Your task to perform on an android device: open app "ColorNote Notepad Notes" (install if not already installed), go to login, and select forgot password Image 0: 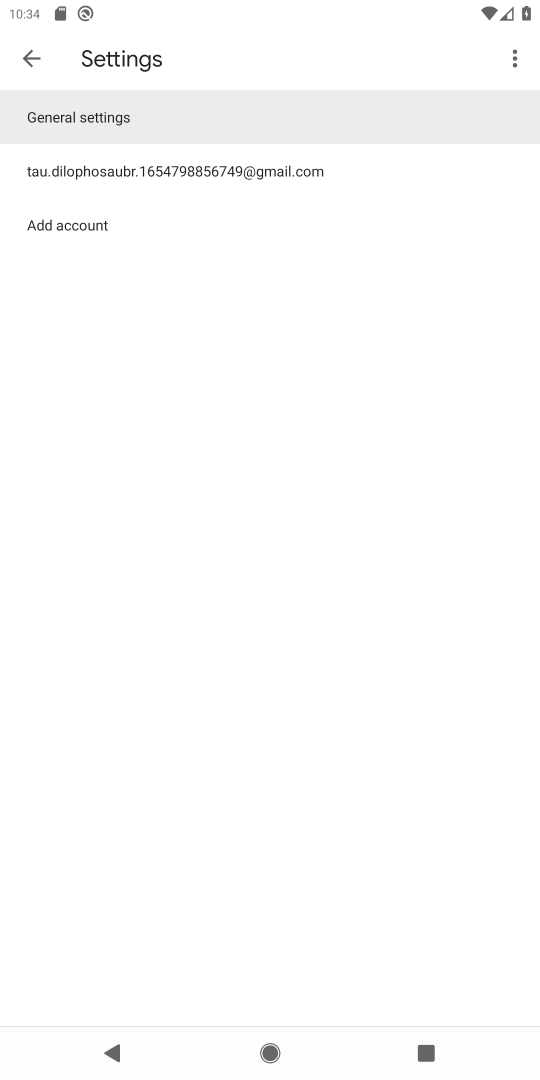
Step 0: press home button
Your task to perform on an android device: open app "ColorNote Notepad Notes" (install if not already installed), go to login, and select forgot password Image 1: 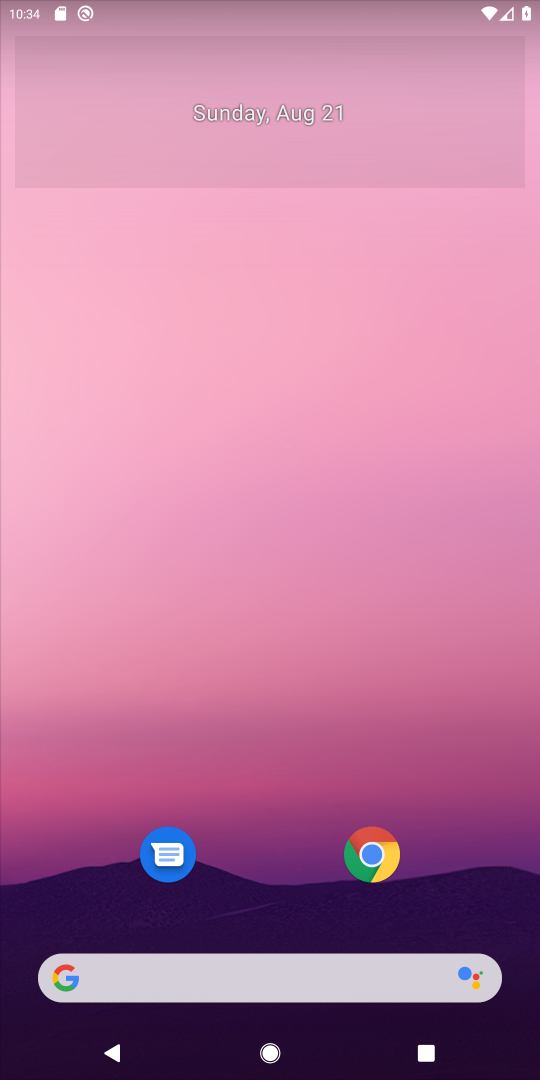
Step 1: drag from (290, 918) to (276, 65)
Your task to perform on an android device: open app "ColorNote Notepad Notes" (install if not already installed), go to login, and select forgot password Image 2: 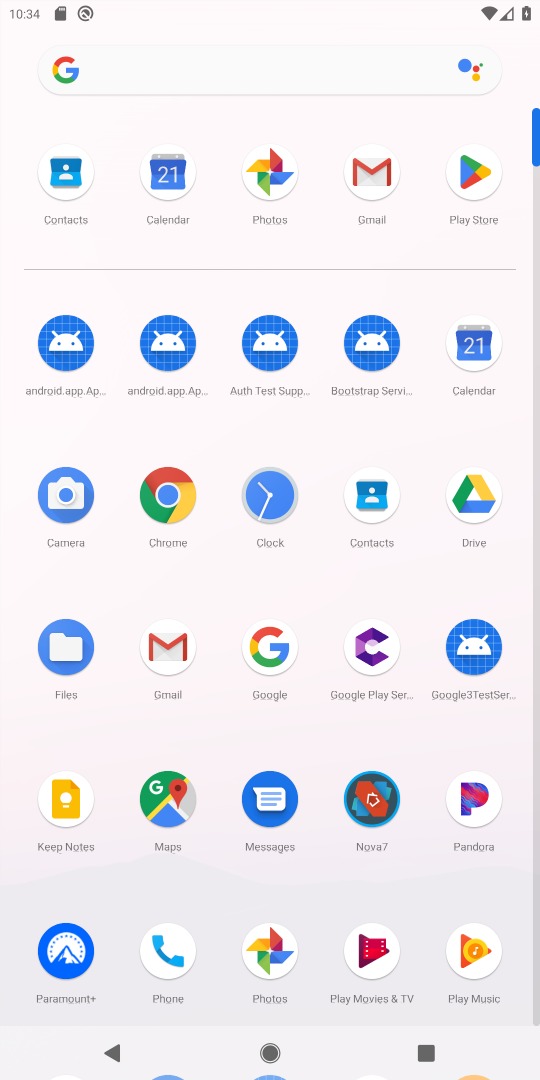
Step 2: click (473, 189)
Your task to perform on an android device: open app "ColorNote Notepad Notes" (install if not already installed), go to login, and select forgot password Image 3: 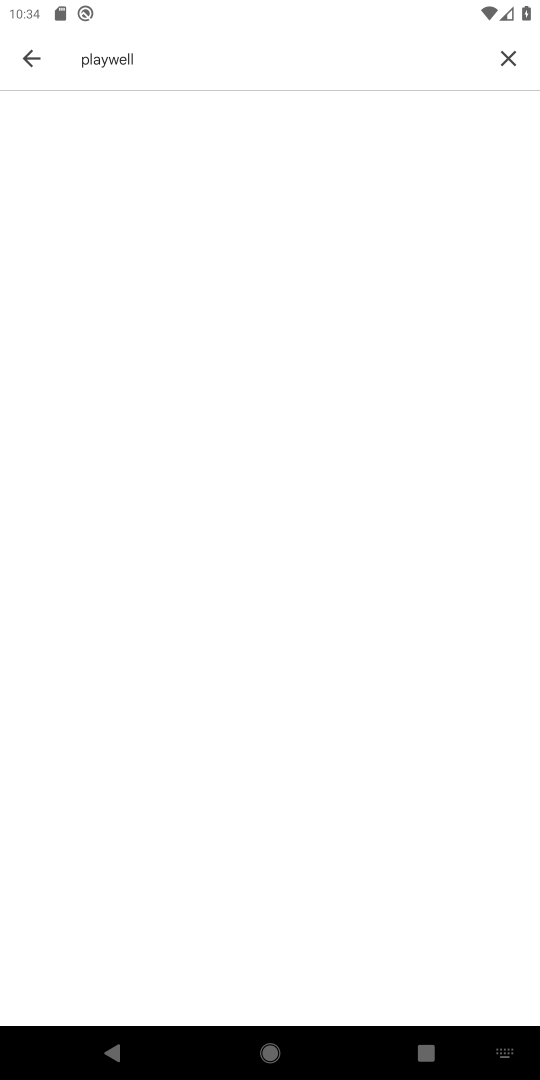
Step 3: click (512, 57)
Your task to perform on an android device: open app "ColorNote Notepad Notes" (install if not already installed), go to login, and select forgot password Image 4: 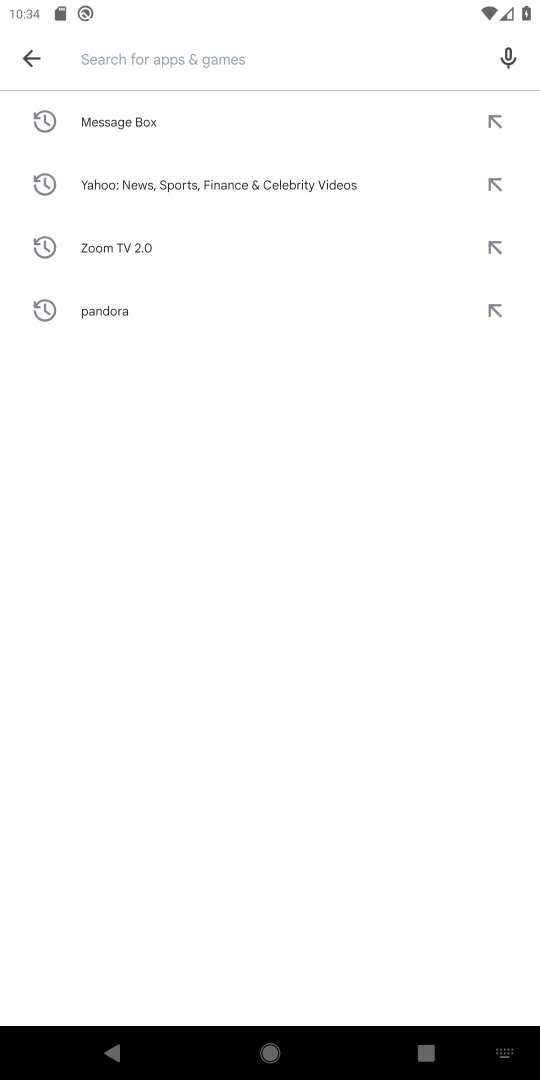
Step 4: type "colornote"
Your task to perform on an android device: open app "ColorNote Notepad Notes" (install if not already installed), go to login, and select forgot password Image 5: 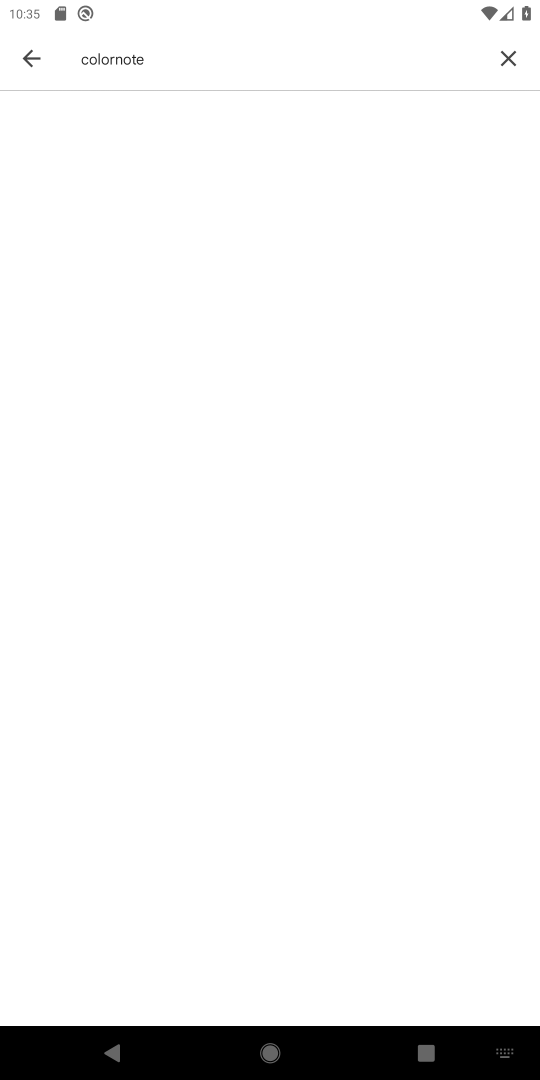
Step 5: task complete